Your task to perform on an android device: toggle improve location accuracy Image 0: 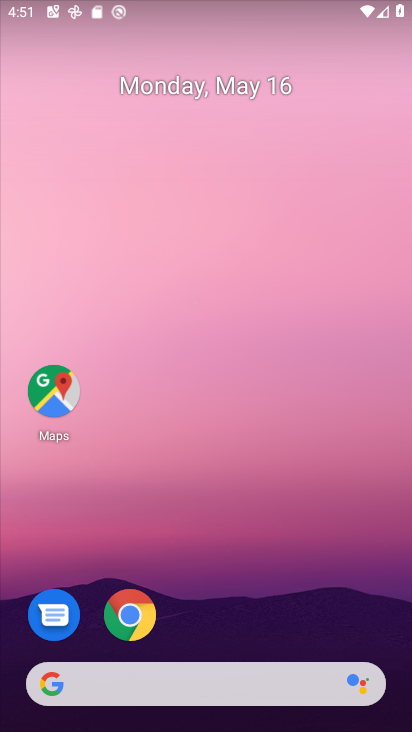
Step 0: drag from (274, 616) to (237, 230)
Your task to perform on an android device: toggle improve location accuracy Image 1: 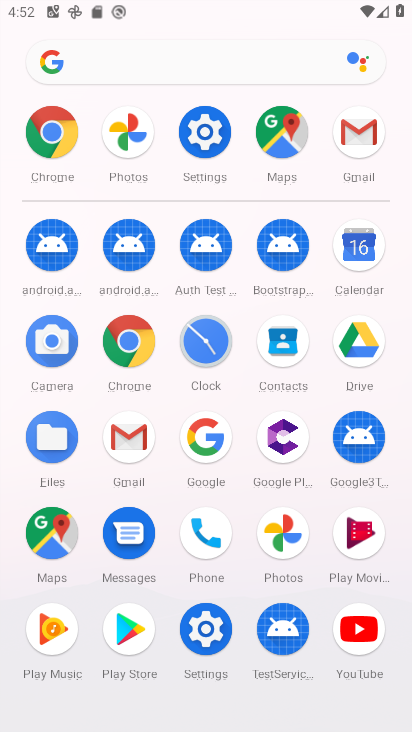
Step 1: click (191, 151)
Your task to perform on an android device: toggle improve location accuracy Image 2: 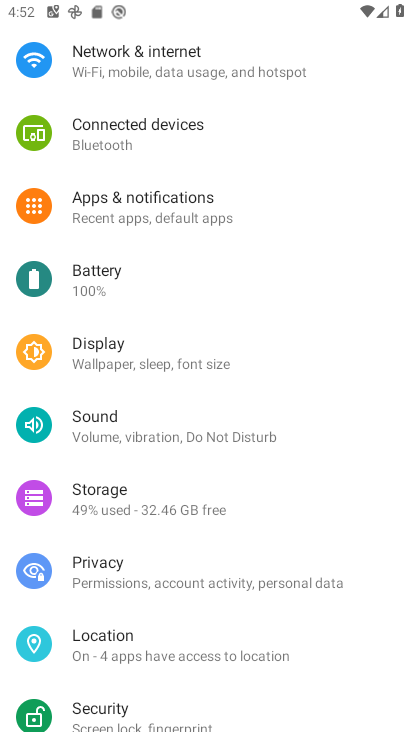
Step 2: click (97, 658)
Your task to perform on an android device: toggle improve location accuracy Image 3: 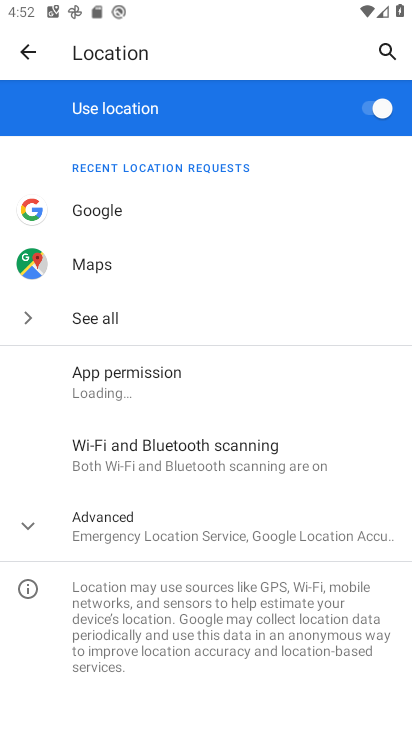
Step 3: click (154, 534)
Your task to perform on an android device: toggle improve location accuracy Image 4: 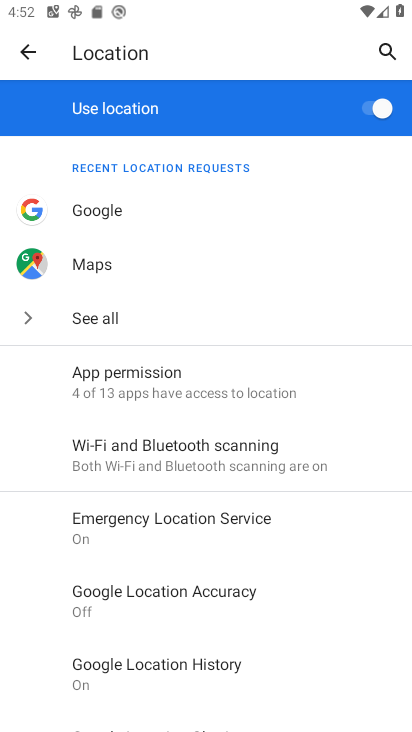
Step 4: click (209, 620)
Your task to perform on an android device: toggle improve location accuracy Image 5: 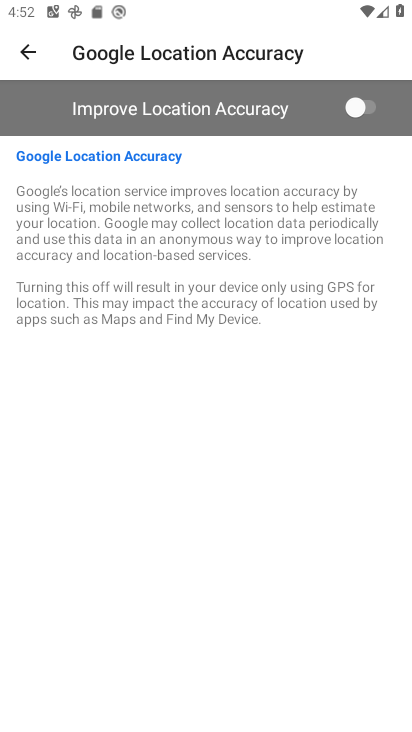
Step 5: click (355, 105)
Your task to perform on an android device: toggle improve location accuracy Image 6: 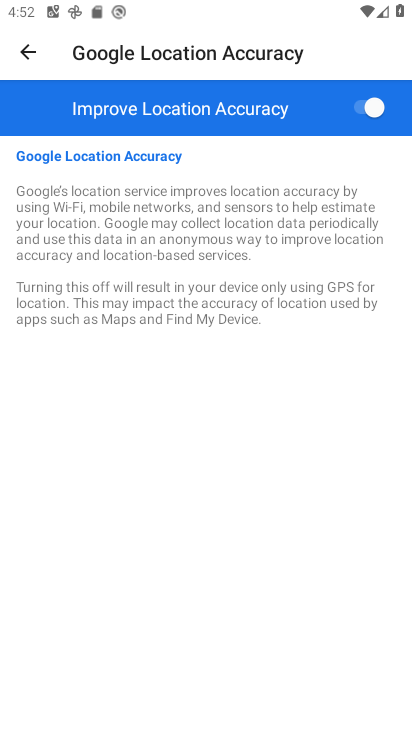
Step 6: task complete